Your task to perform on an android device: Search for Mexican restaurants on Maps Image 0: 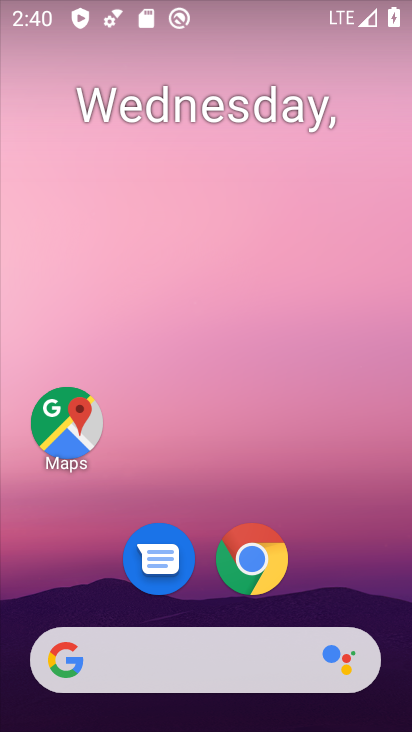
Step 0: drag from (361, 487) to (357, 194)
Your task to perform on an android device: Search for Mexican restaurants on Maps Image 1: 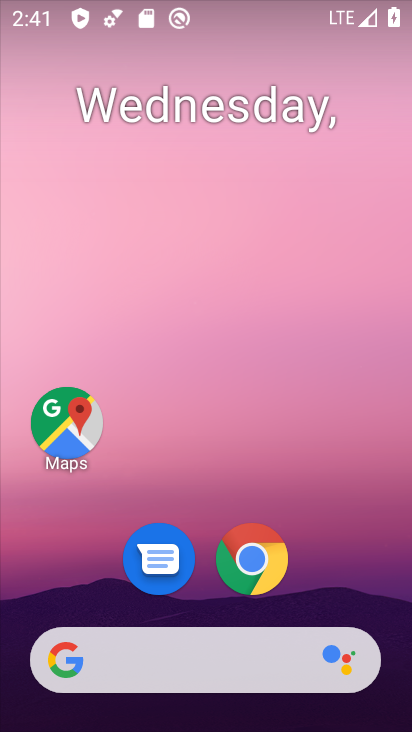
Step 1: drag from (325, 545) to (330, 229)
Your task to perform on an android device: Search for Mexican restaurants on Maps Image 2: 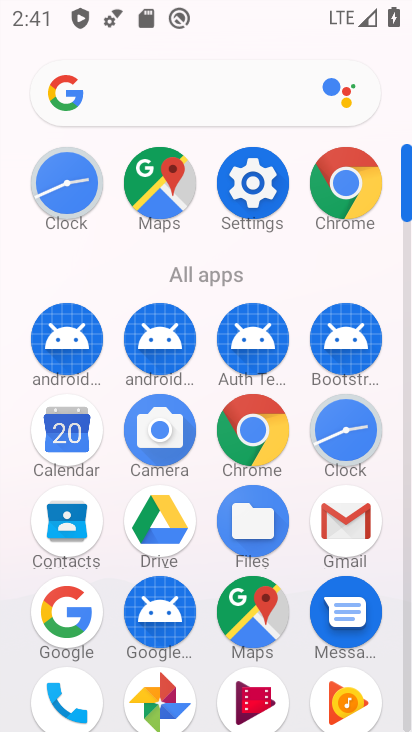
Step 2: click (261, 609)
Your task to perform on an android device: Search for Mexican restaurants on Maps Image 3: 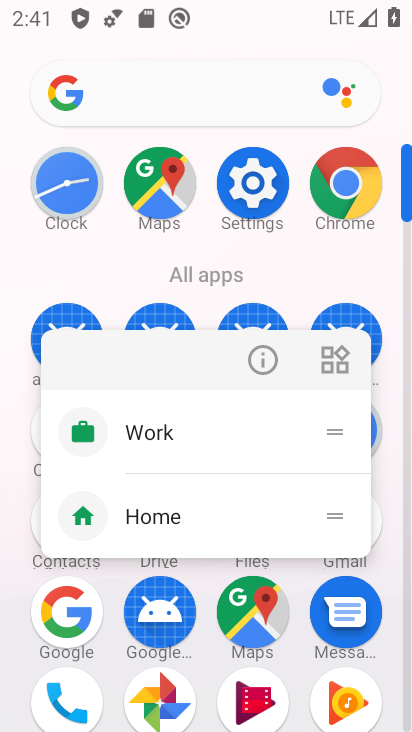
Step 3: click (263, 608)
Your task to perform on an android device: Search for Mexican restaurants on Maps Image 4: 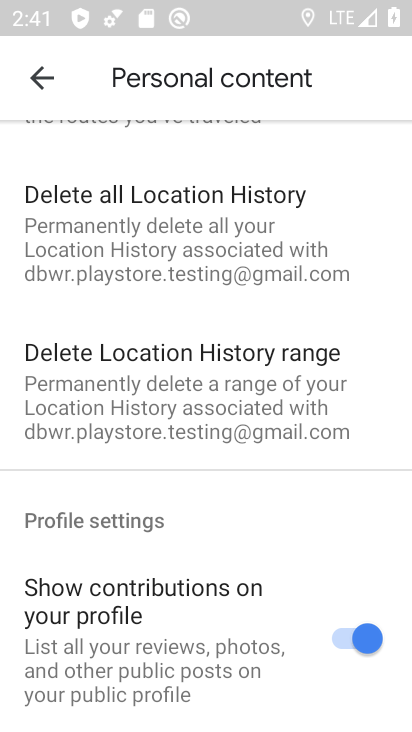
Step 4: click (60, 81)
Your task to perform on an android device: Search for Mexican restaurants on Maps Image 5: 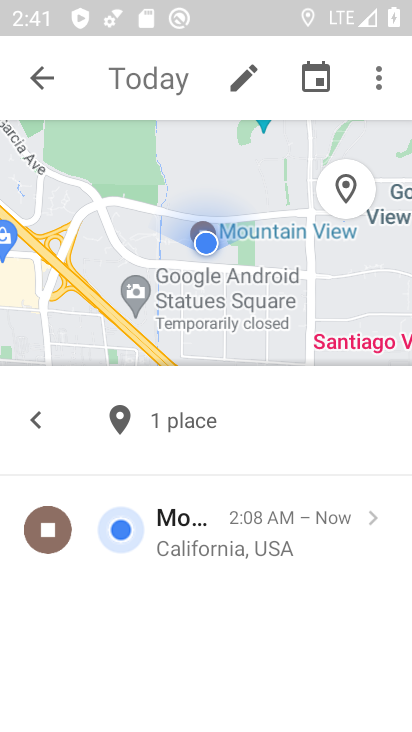
Step 5: click (60, 81)
Your task to perform on an android device: Search for Mexican restaurants on Maps Image 6: 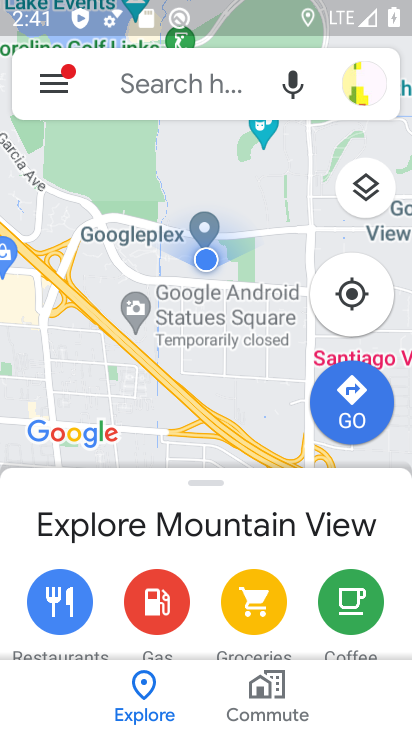
Step 6: click (122, 94)
Your task to perform on an android device: Search for Mexican restaurants on Maps Image 7: 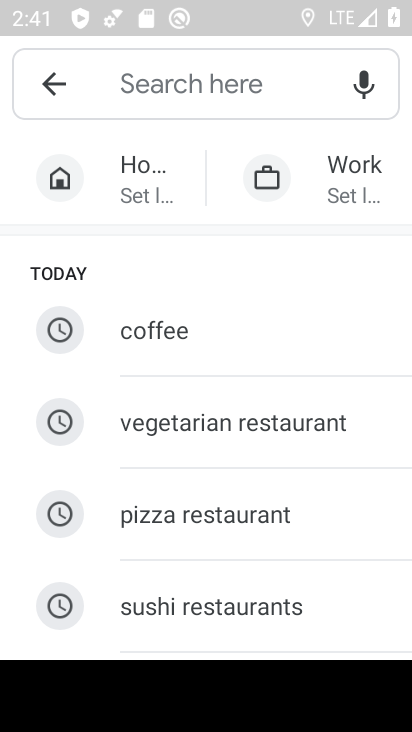
Step 7: type "mexican restaurants"
Your task to perform on an android device: Search for Mexican restaurants on Maps Image 8: 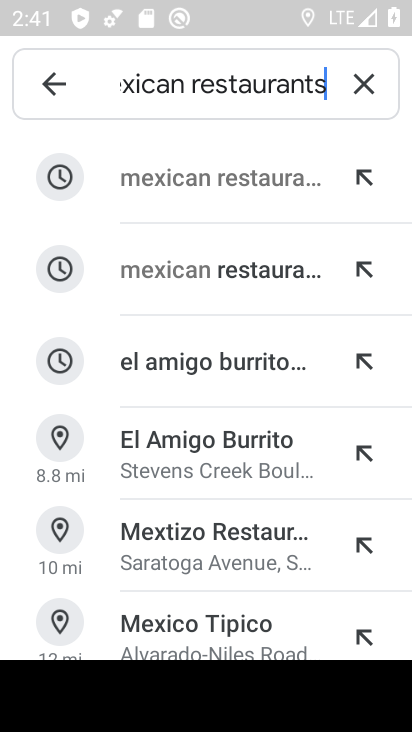
Step 8: click (199, 174)
Your task to perform on an android device: Search for Mexican restaurants on Maps Image 9: 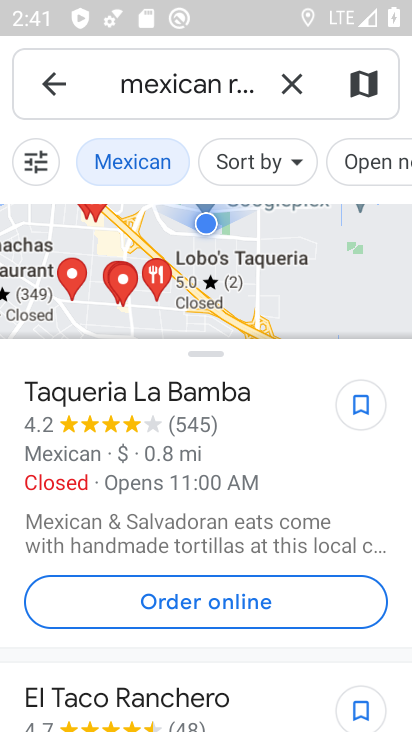
Step 9: task complete